Your task to perform on an android device: Go to eBay Image 0: 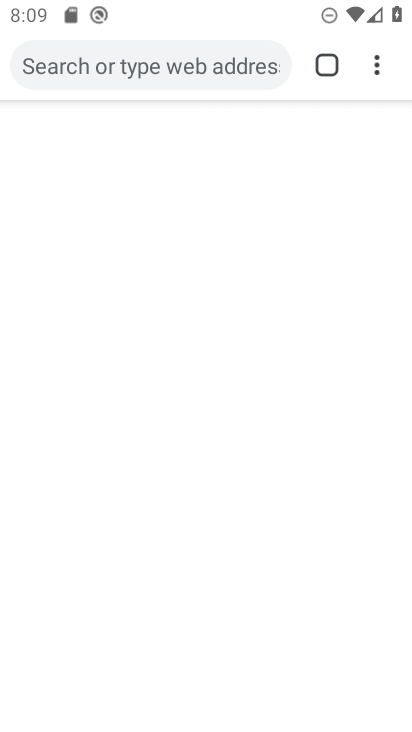
Step 0: drag from (363, 624) to (411, 407)
Your task to perform on an android device: Go to eBay Image 1: 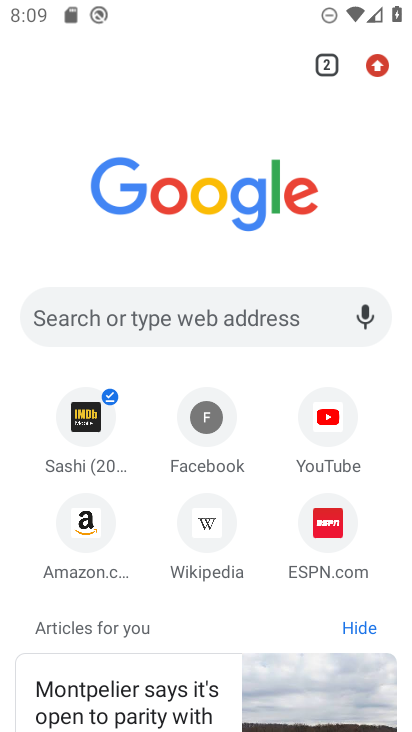
Step 1: click (147, 310)
Your task to perform on an android device: Go to eBay Image 2: 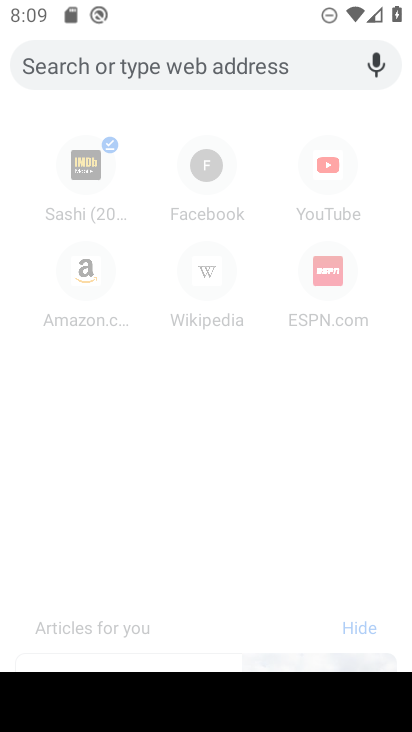
Step 2: type "ebay.com"
Your task to perform on an android device: Go to eBay Image 3: 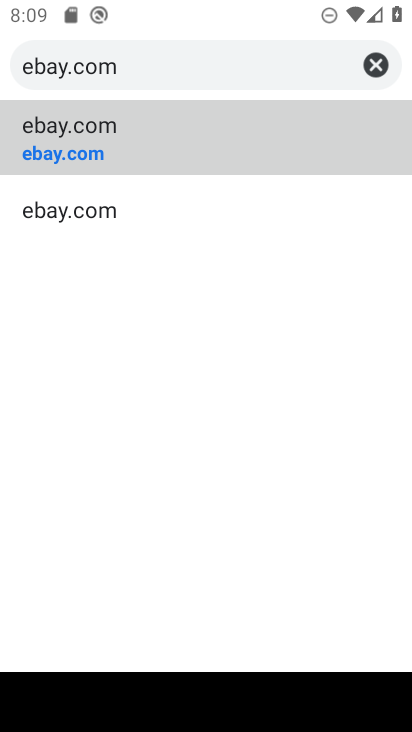
Step 3: click (98, 138)
Your task to perform on an android device: Go to eBay Image 4: 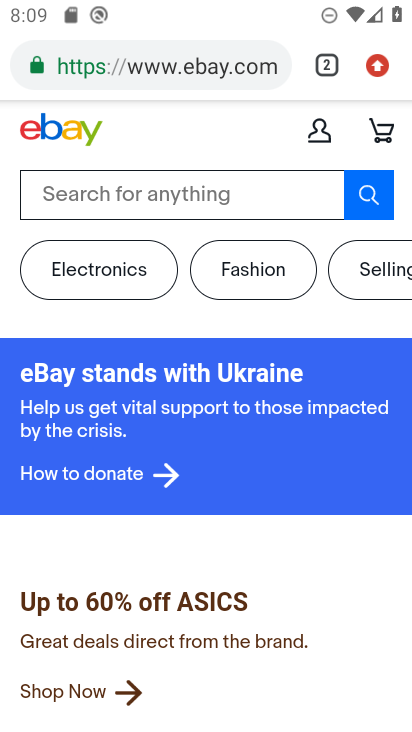
Step 4: task complete